Your task to perform on an android device: Search for hotels in Boston Image 0: 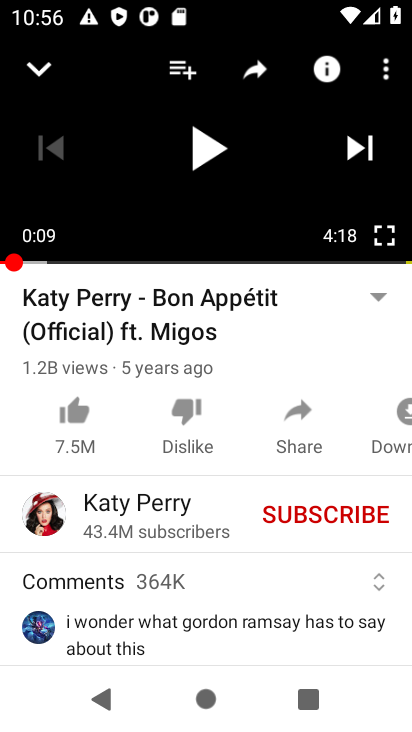
Step 0: press home button
Your task to perform on an android device: Search for hotels in Boston Image 1: 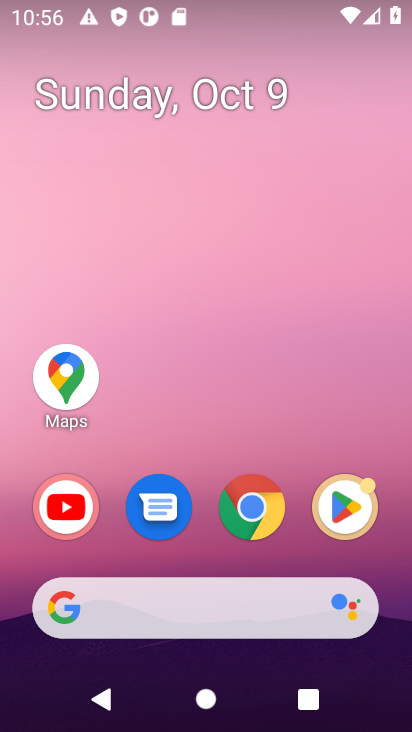
Step 1: click (236, 599)
Your task to perform on an android device: Search for hotels in Boston Image 2: 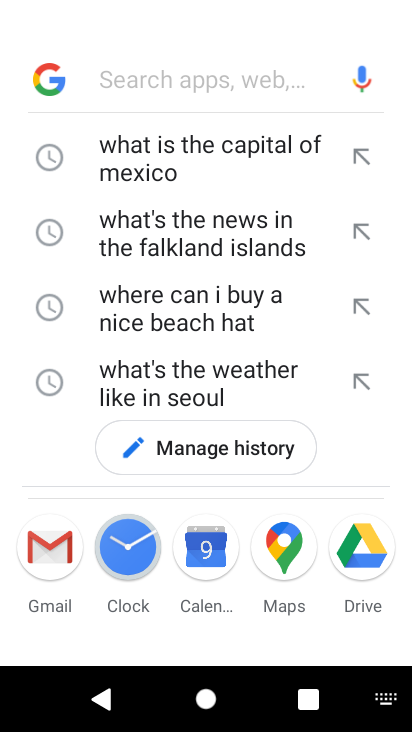
Step 2: type " hotels in Boston"
Your task to perform on an android device: Search for hotels in Boston Image 3: 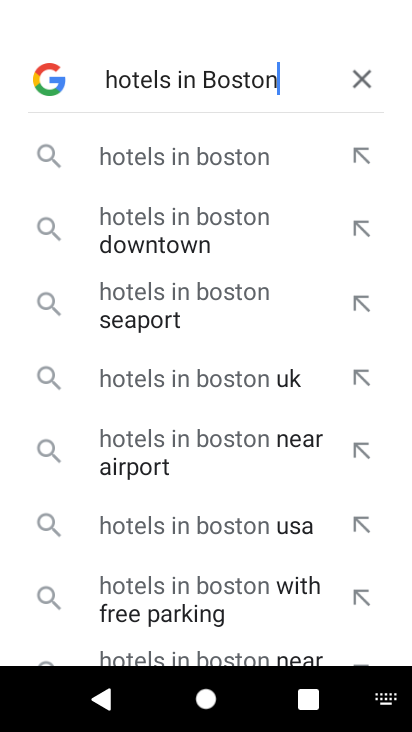
Step 3: press enter
Your task to perform on an android device: Search for hotels in Boston Image 4: 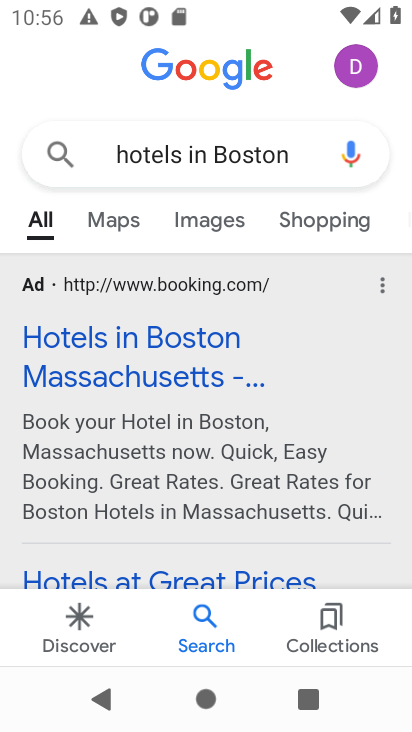
Step 4: drag from (207, 486) to (232, 271)
Your task to perform on an android device: Search for hotels in Boston Image 5: 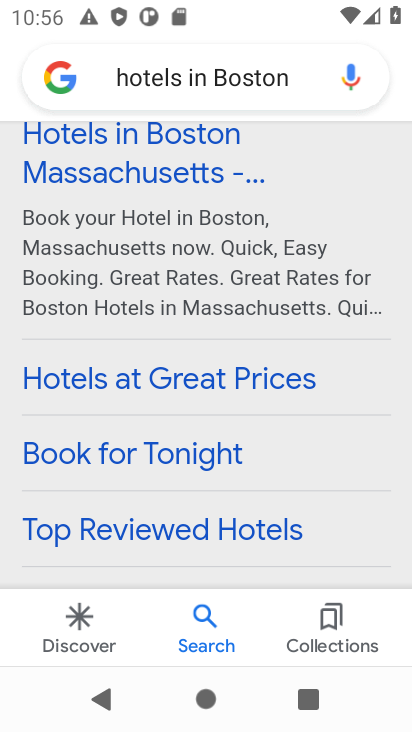
Step 5: drag from (170, 490) to (229, 144)
Your task to perform on an android device: Search for hotels in Boston Image 6: 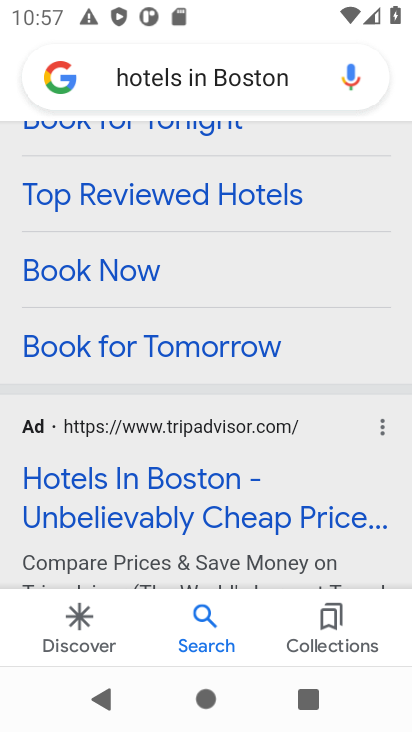
Step 6: click (159, 498)
Your task to perform on an android device: Search for hotels in Boston Image 7: 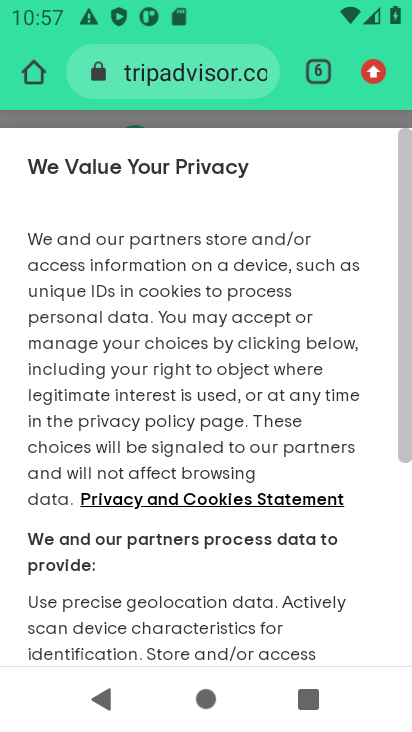
Step 7: drag from (284, 580) to (281, 207)
Your task to perform on an android device: Search for hotels in Boston Image 8: 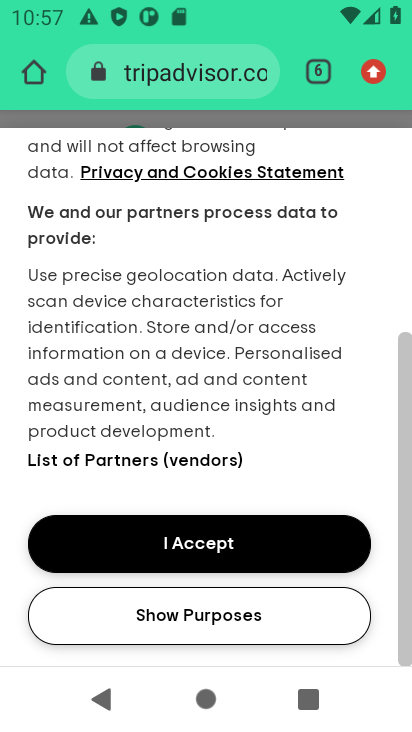
Step 8: click (249, 564)
Your task to perform on an android device: Search for hotels in Boston Image 9: 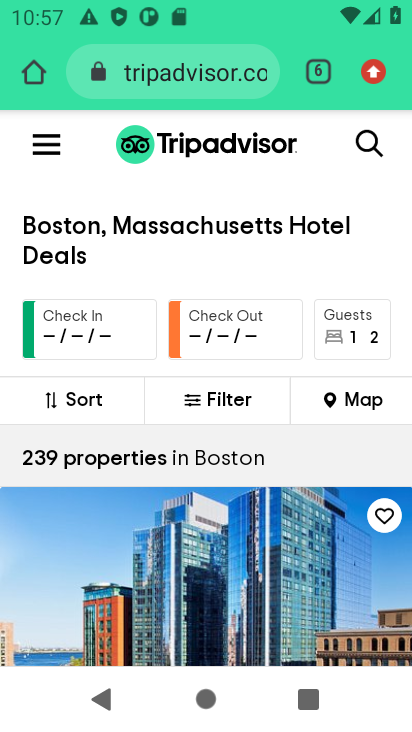
Step 9: task complete